Your task to perform on an android device: turn on translation in the chrome app Image 0: 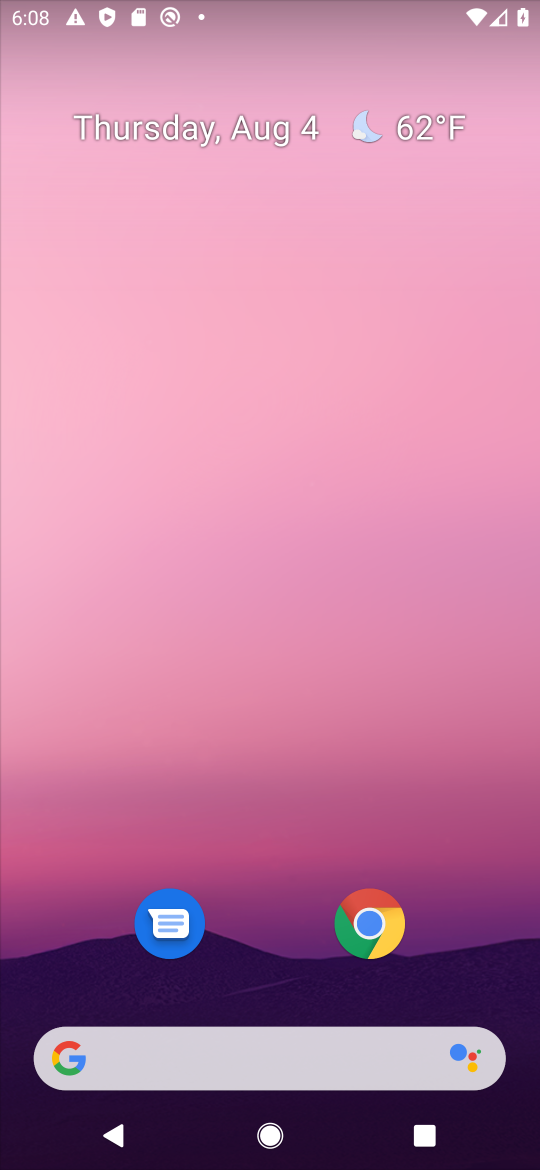
Step 0: click (382, 920)
Your task to perform on an android device: turn on translation in the chrome app Image 1: 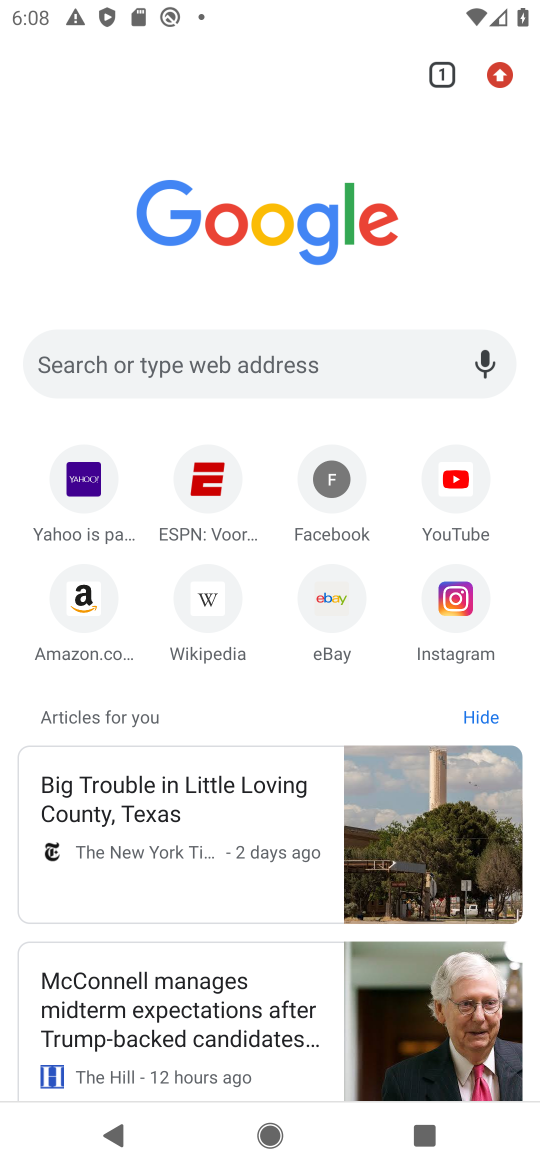
Step 1: click (491, 79)
Your task to perform on an android device: turn on translation in the chrome app Image 2: 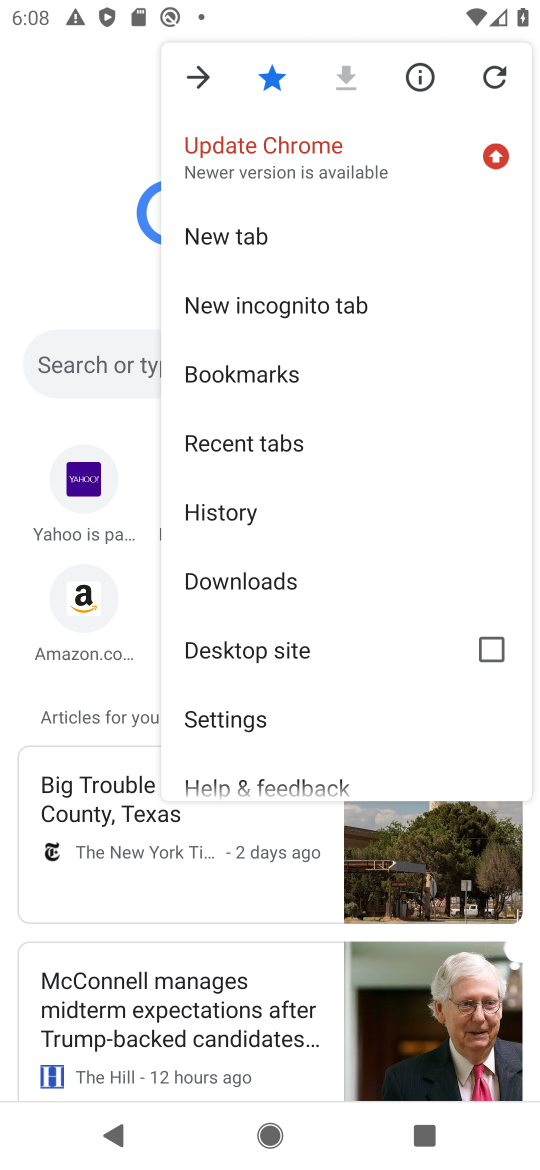
Step 2: click (264, 717)
Your task to perform on an android device: turn on translation in the chrome app Image 3: 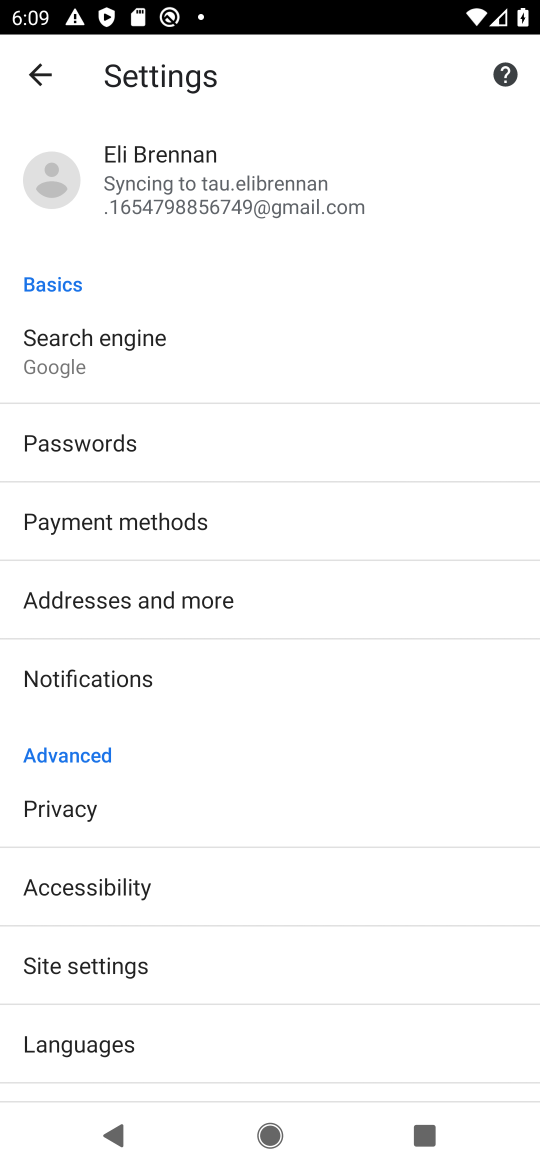
Step 3: drag from (289, 968) to (245, 664)
Your task to perform on an android device: turn on translation in the chrome app Image 4: 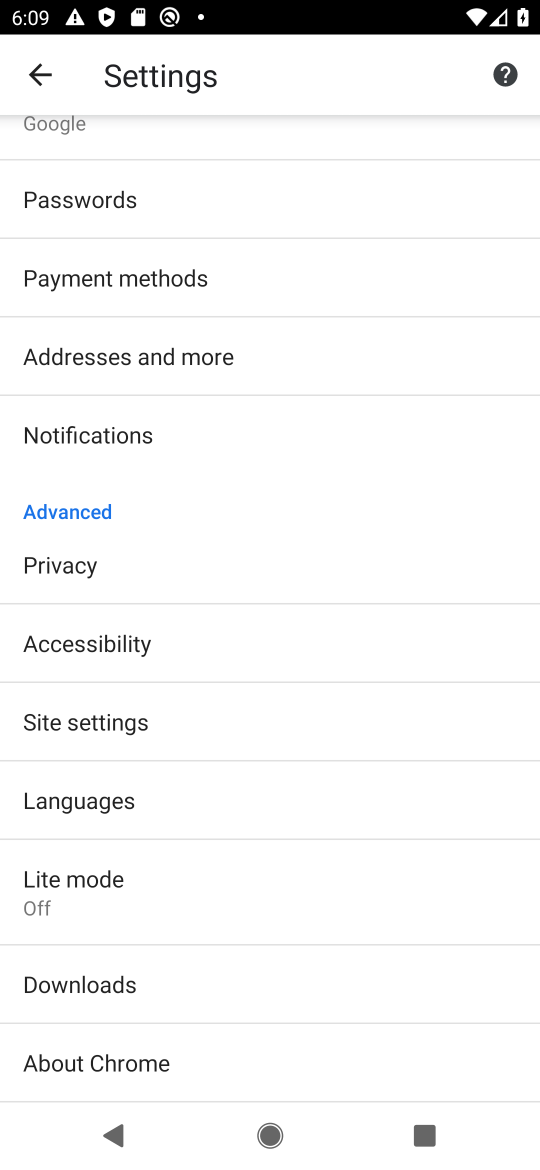
Step 4: click (173, 812)
Your task to perform on an android device: turn on translation in the chrome app Image 5: 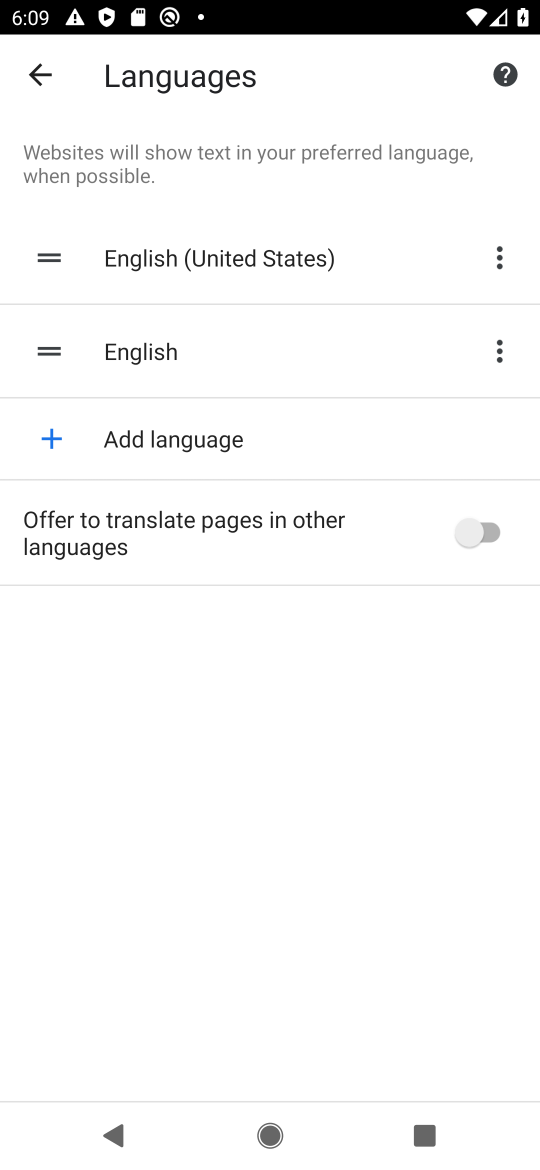
Step 5: click (486, 521)
Your task to perform on an android device: turn on translation in the chrome app Image 6: 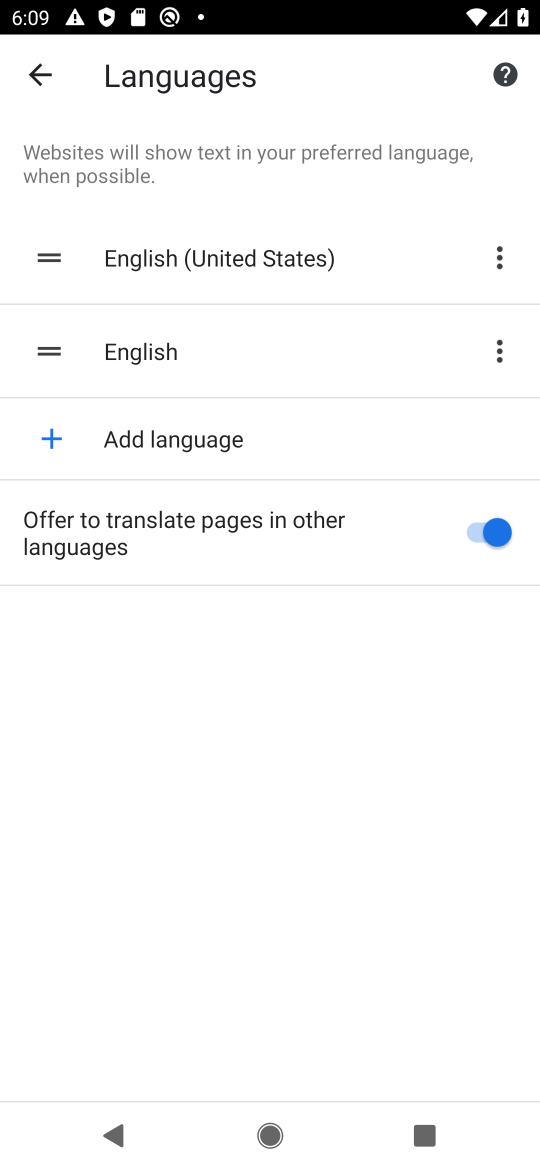
Step 6: task complete